Your task to perform on an android device: toggle data saver in the chrome app Image 0: 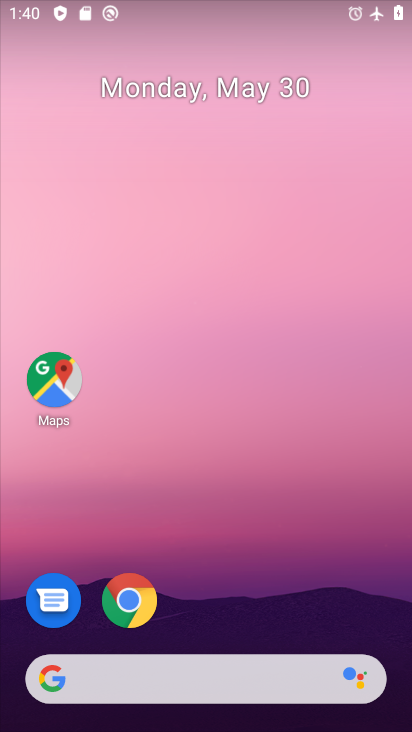
Step 0: click (130, 597)
Your task to perform on an android device: toggle data saver in the chrome app Image 1: 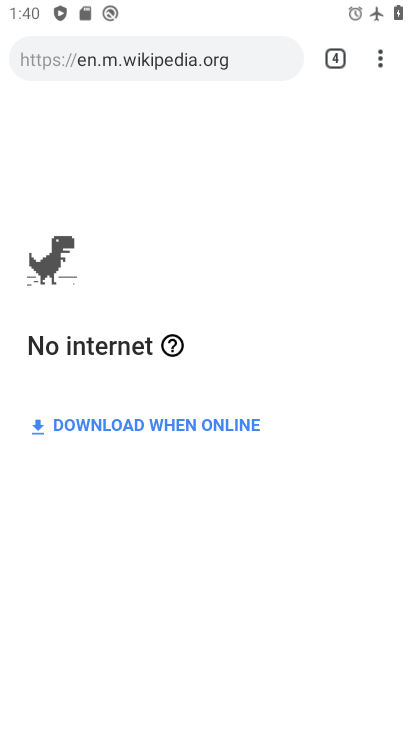
Step 1: click (379, 63)
Your task to perform on an android device: toggle data saver in the chrome app Image 2: 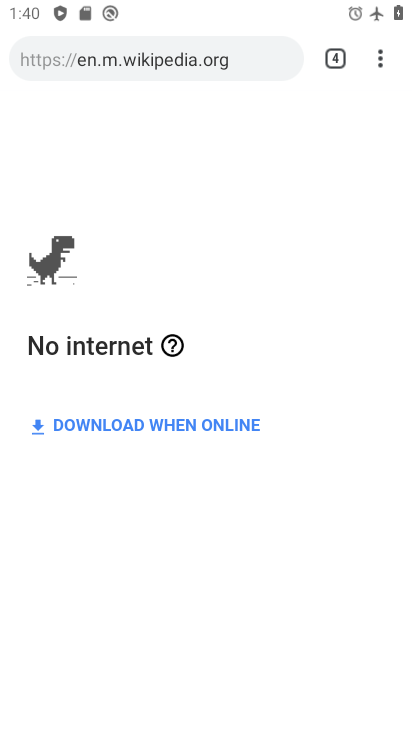
Step 2: drag from (378, 54) to (187, 656)
Your task to perform on an android device: toggle data saver in the chrome app Image 3: 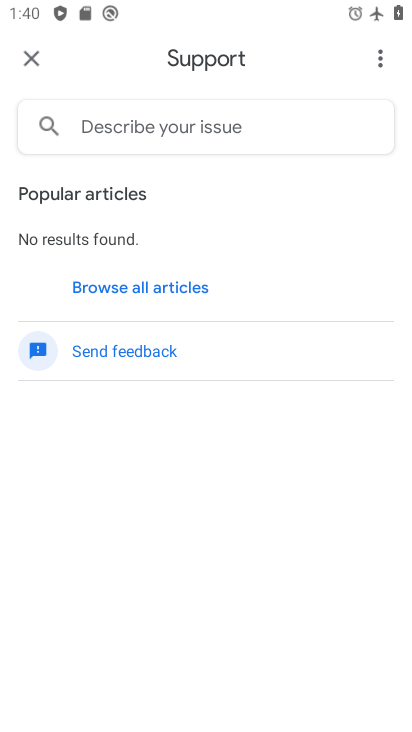
Step 3: click (22, 58)
Your task to perform on an android device: toggle data saver in the chrome app Image 4: 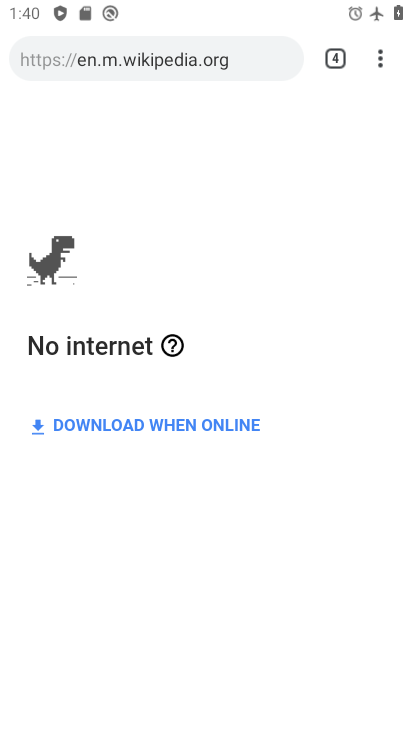
Step 4: click (378, 64)
Your task to perform on an android device: toggle data saver in the chrome app Image 5: 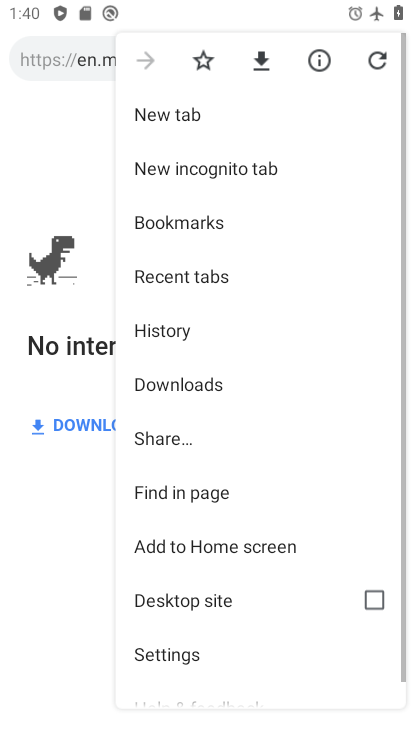
Step 5: click (179, 664)
Your task to perform on an android device: toggle data saver in the chrome app Image 6: 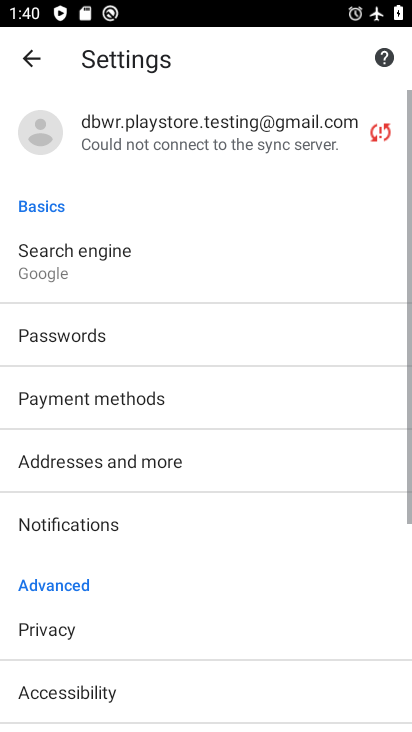
Step 6: drag from (177, 653) to (169, 104)
Your task to perform on an android device: toggle data saver in the chrome app Image 7: 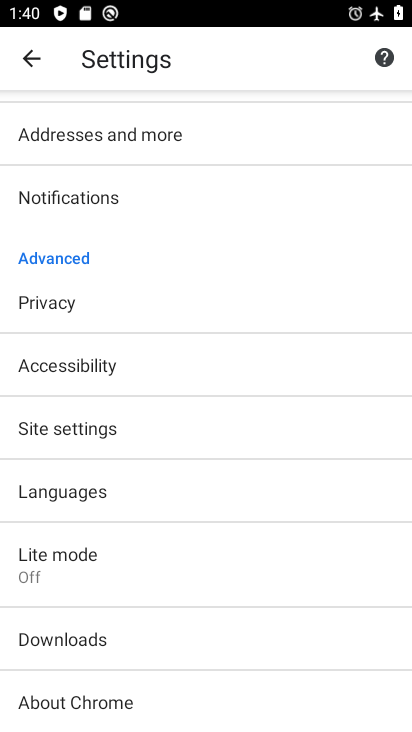
Step 7: click (71, 547)
Your task to perform on an android device: toggle data saver in the chrome app Image 8: 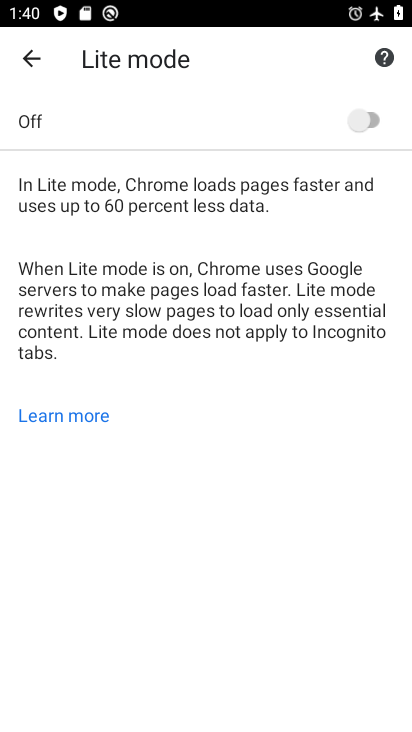
Step 8: click (368, 110)
Your task to perform on an android device: toggle data saver in the chrome app Image 9: 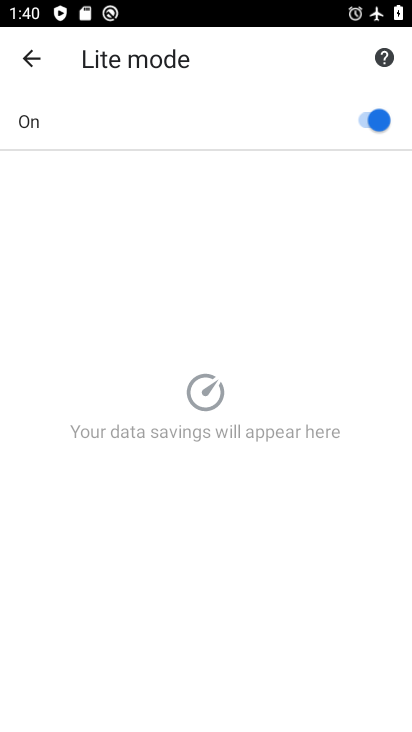
Step 9: task complete